Your task to perform on an android device: refresh tabs in the chrome app Image 0: 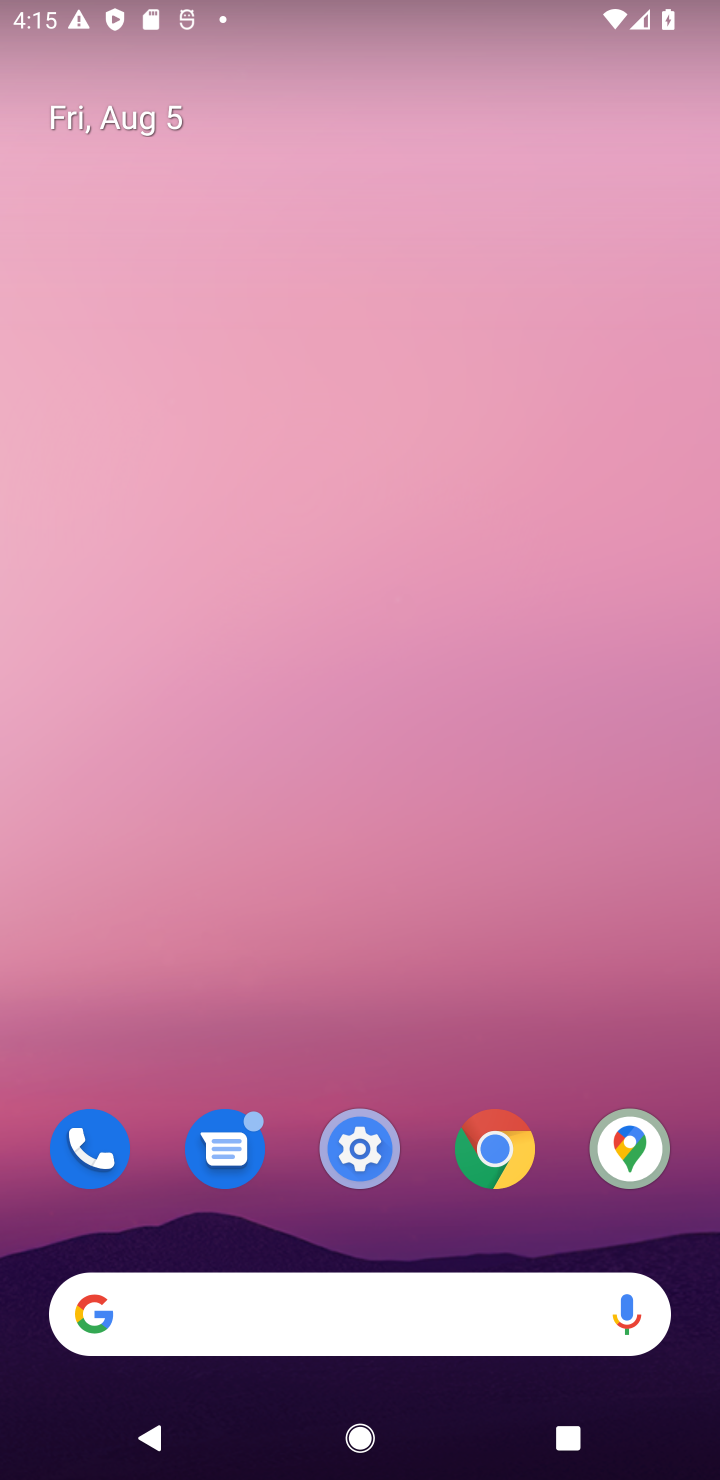
Step 0: click (493, 1160)
Your task to perform on an android device: refresh tabs in the chrome app Image 1: 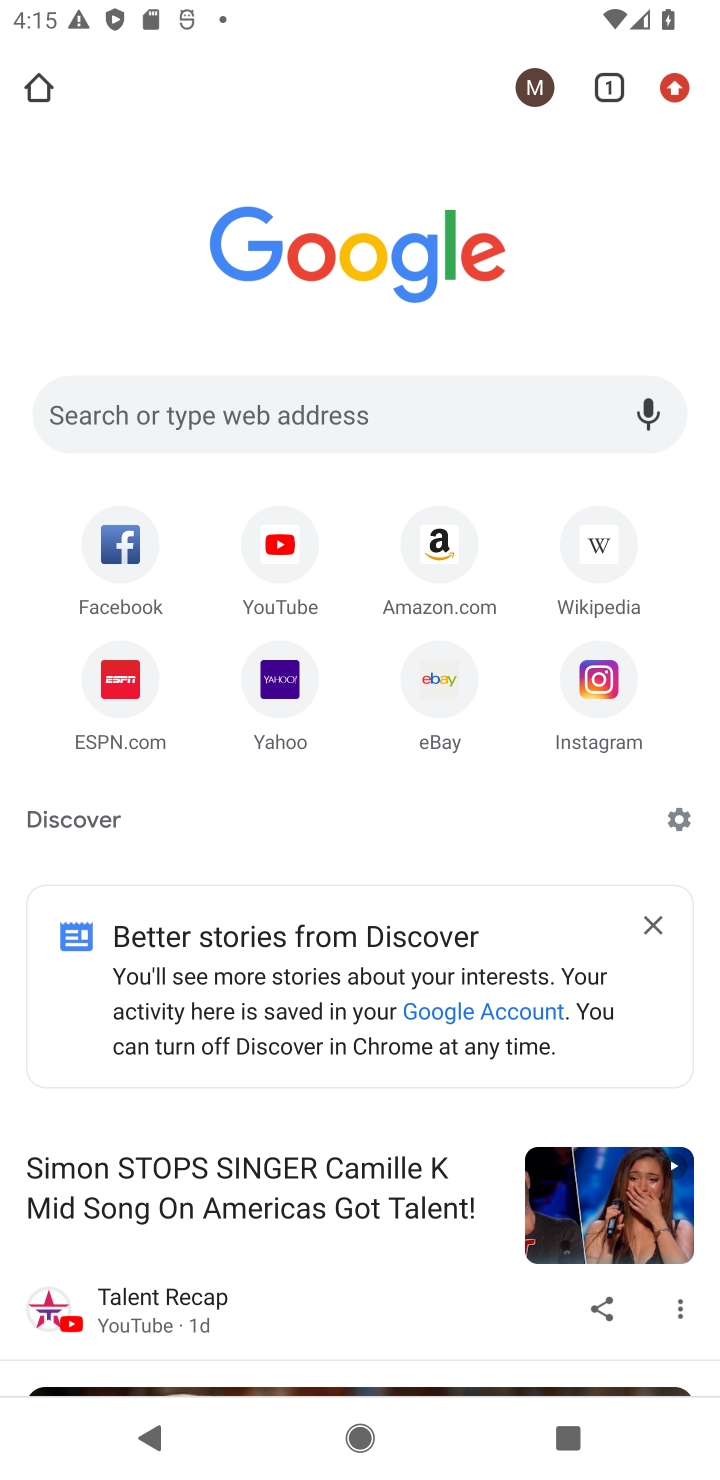
Step 1: drag from (668, 80) to (456, 680)
Your task to perform on an android device: refresh tabs in the chrome app Image 2: 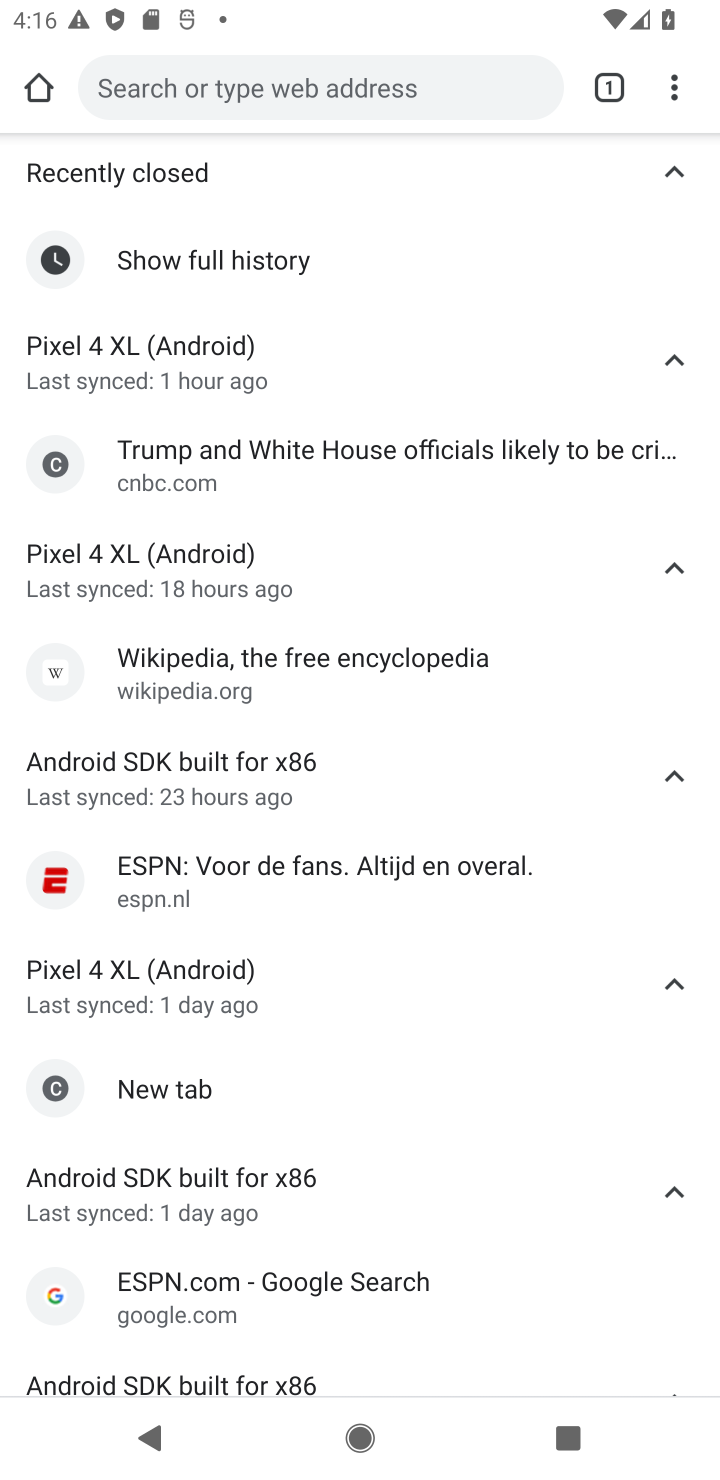
Step 2: click (667, 96)
Your task to perform on an android device: refresh tabs in the chrome app Image 3: 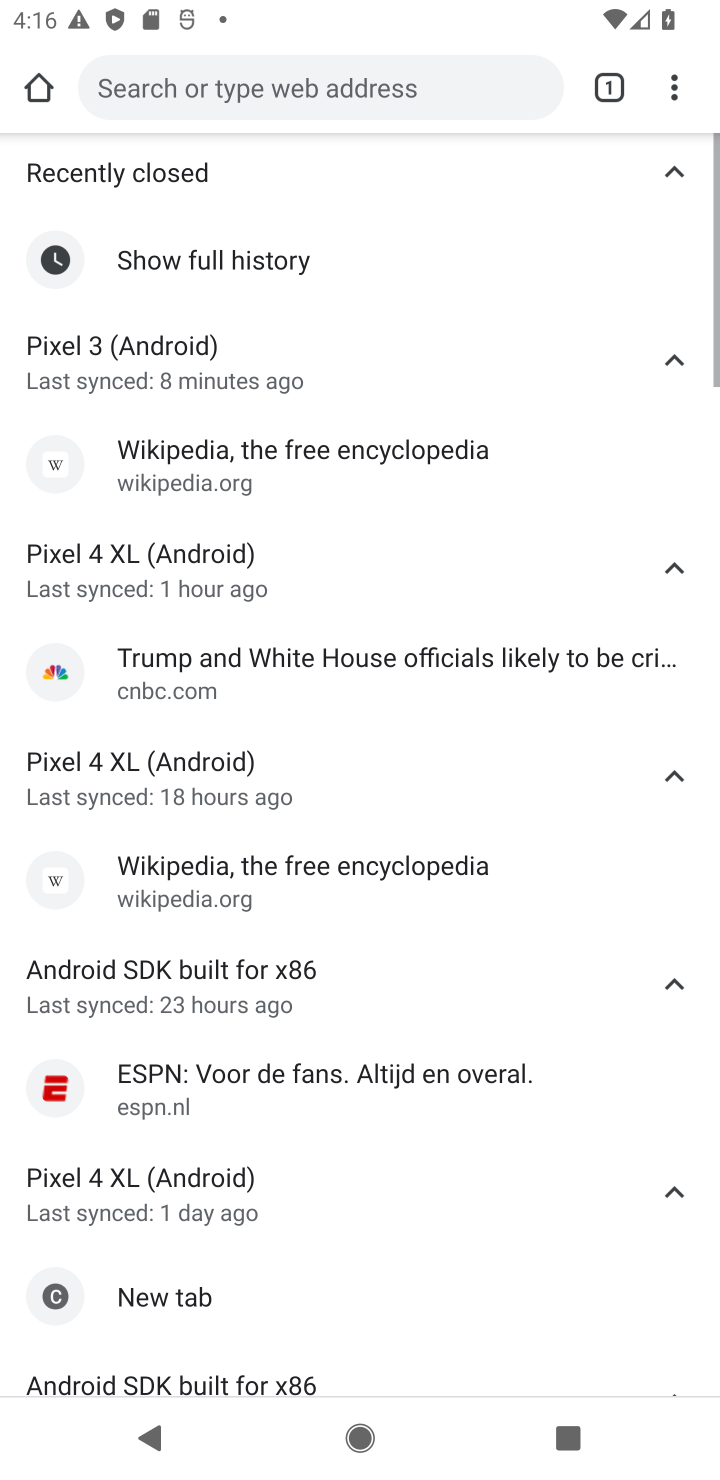
Step 3: task complete